Your task to perform on an android device: Open privacy settings Image 0: 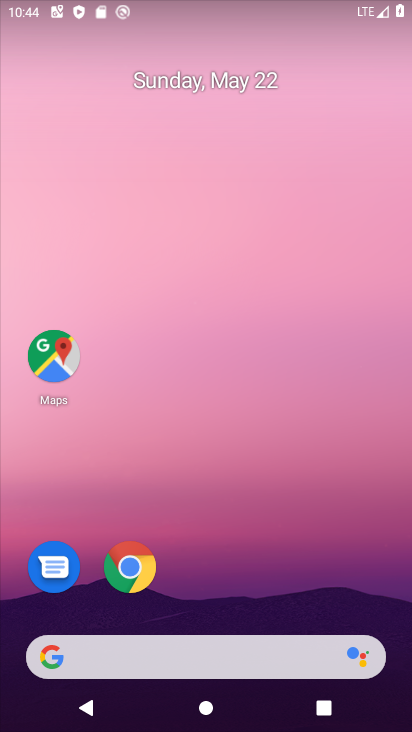
Step 0: drag from (246, 513) to (247, 35)
Your task to perform on an android device: Open privacy settings Image 1: 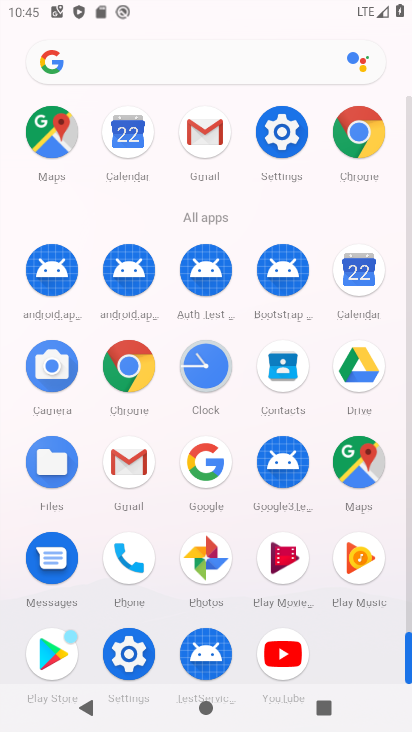
Step 1: click (127, 365)
Your task to perform on an android device: Open privacy settings Image 2: 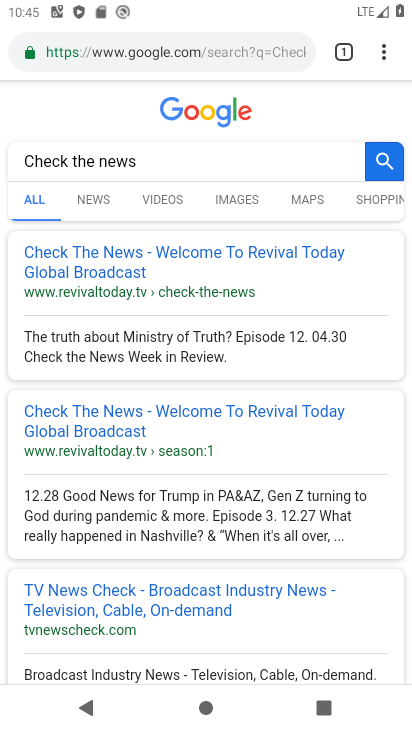
Step 2: drag from (388, 51) to (214, 557)
Your task to perform on an android device: Open privacy settings Image 3: 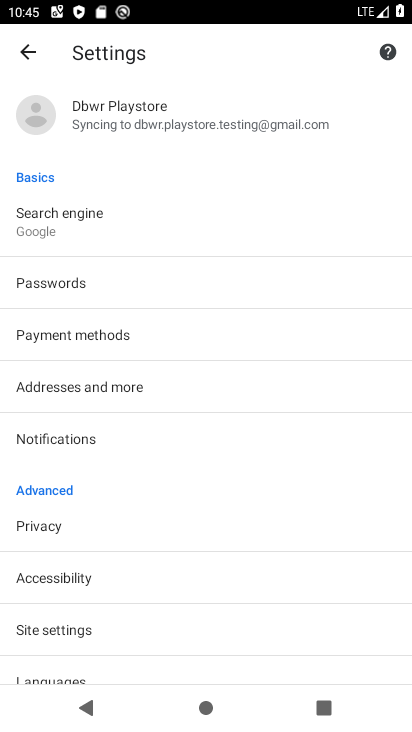
Step 3: click (47, 524)
Your task to perform on an android device: Open privacy settings Image 4: 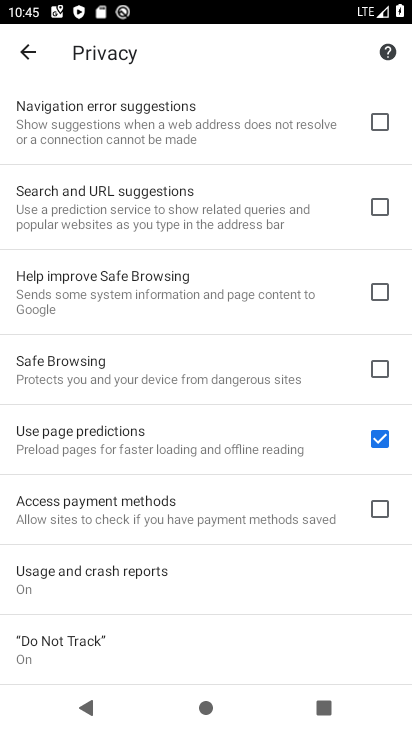
Step 4: task complete